Your task to perform on an android device: change the clock style Image 0: 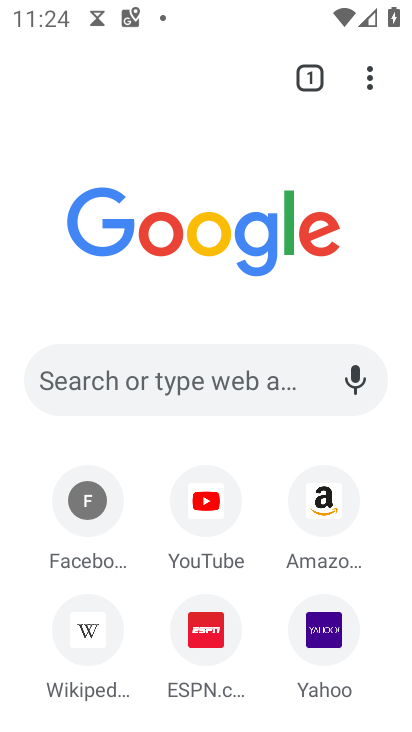
Step 0: press home button
Your task to perform on an android device: change the clock style Image 1: 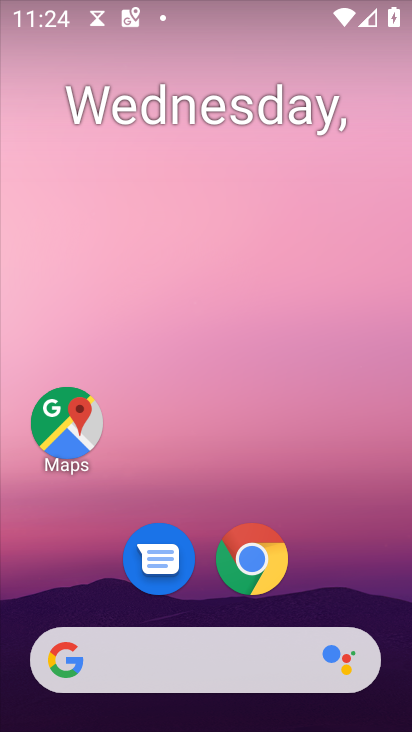
Step 1: drag from (383, 577) to (295, 130)
Your task to perform on an android device: change the clock style Image 2: 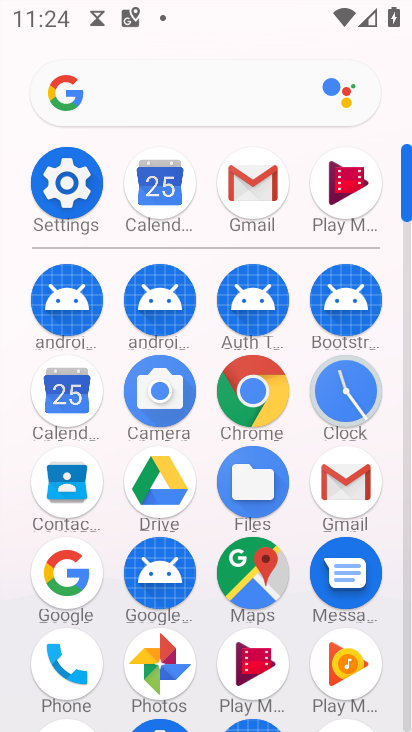
Step 2: click (346, 378)
Your task to perform on an android device: change the clock style Image 3: 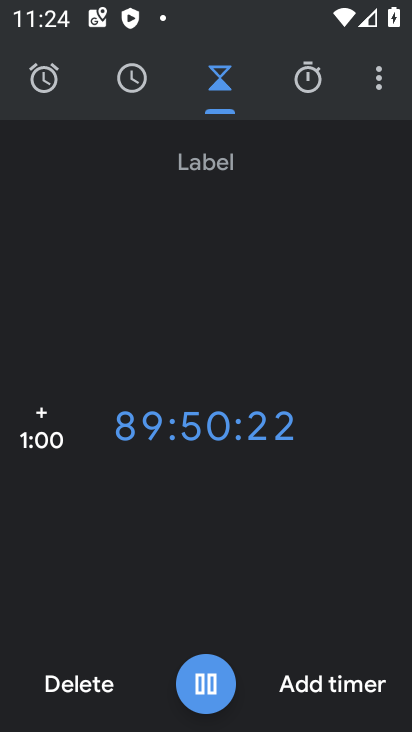
Step 3: click (379, 90)
Your task to perform on an android device: change the clock style Image 4: 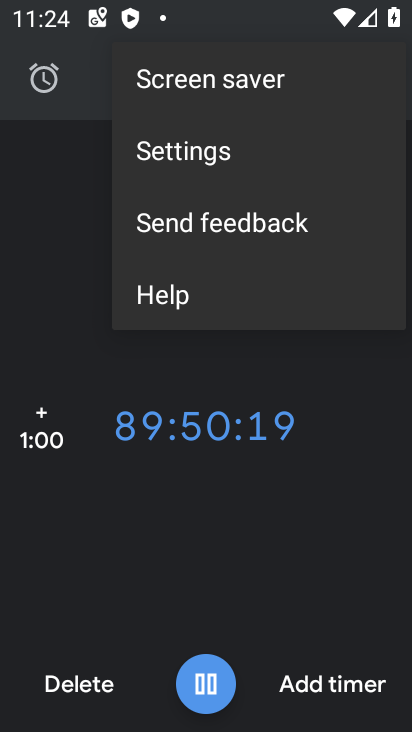
Step 4: click (290, 159)
Your task to perform on an android device: change the clock style Image 5: 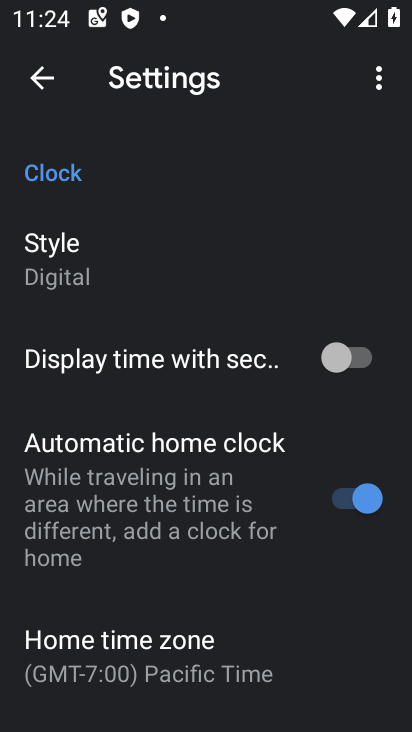
Step 5: click (229, 255)
Your task to perform on an android device: change the clock style Image 6: 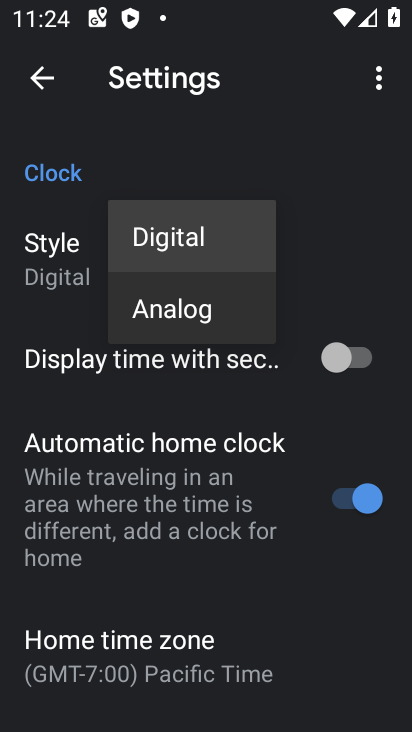
Step 6: click (226, 300)
Your task to perform on an android device: change the clock style Image 7: 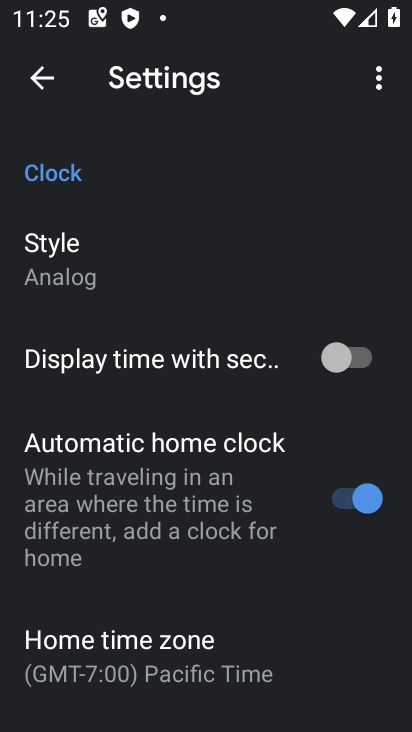
Step 7: task complete